Your task to perform on an android device: What is the recent news? Image 0: 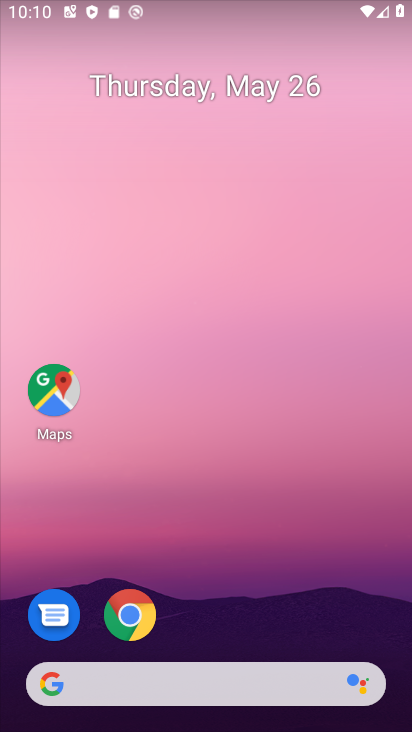
Step 0: drag from (303, 686) to (384, 582)
Your task to perform on an android device: What is the recent news? Image 1: 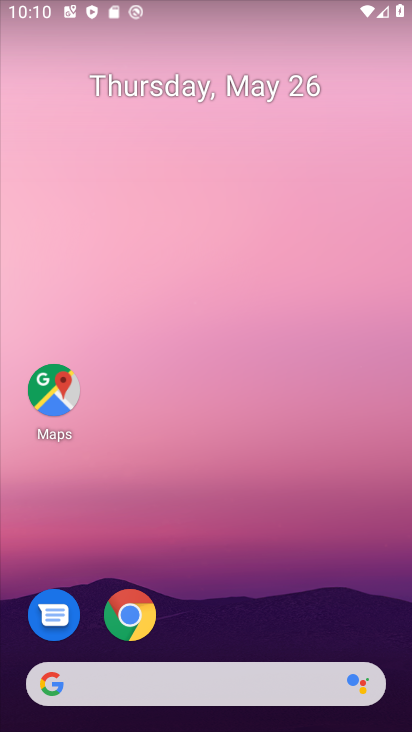
Step 1: drag from (211, 651) to (251, 59)
Your task to perform on an android device: What is the recent news? Image 2: 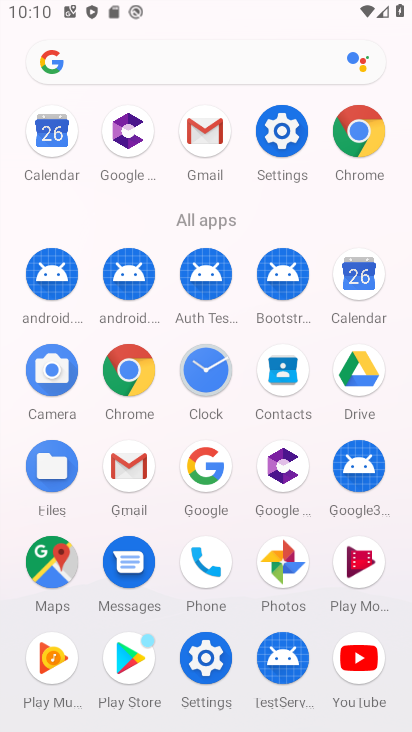
Step 2: click (119, 349)
Your task to perform on an android device: What is the recent news? Image 3: 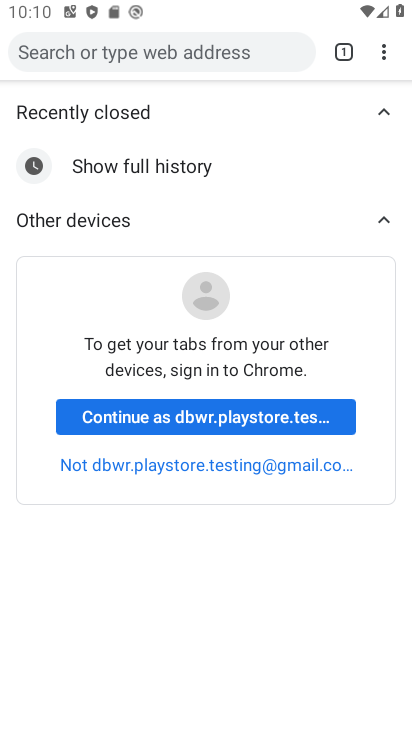
Step 3: click (249, 55)
Your task to perform on an android device: What is the recent news? Image 4: 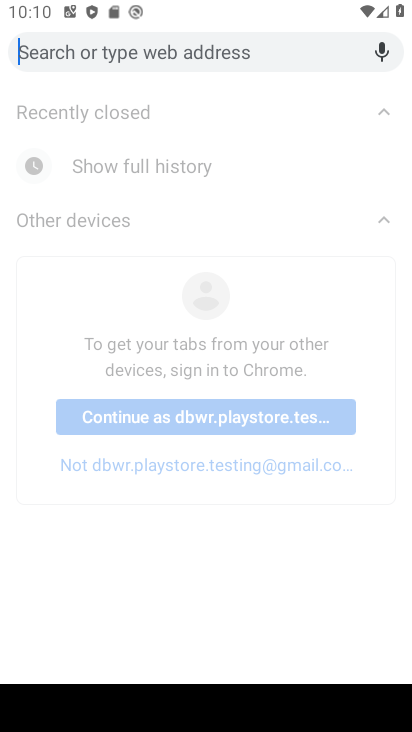
Step 4: type "recent news"
Your task to perform on an android device: What is the recent news? Image 5: 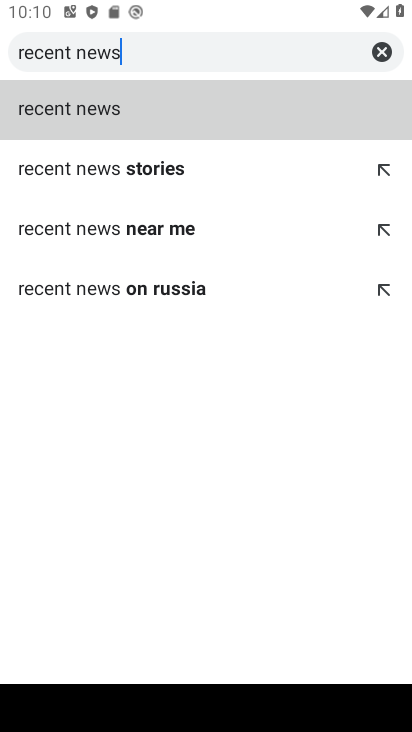
Step 5: click (242, 114)
Your task to perform on an android device: What is the recent news? Image 6: 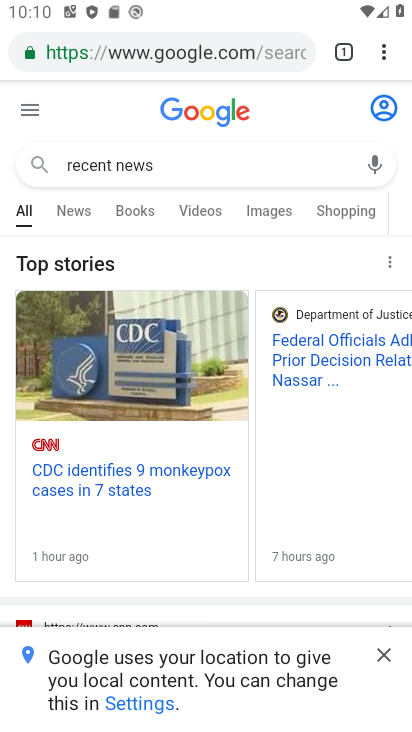
Step 6: task complete